Your task to perform on an android device: turn off notifications settings in the gmail app Image 0: 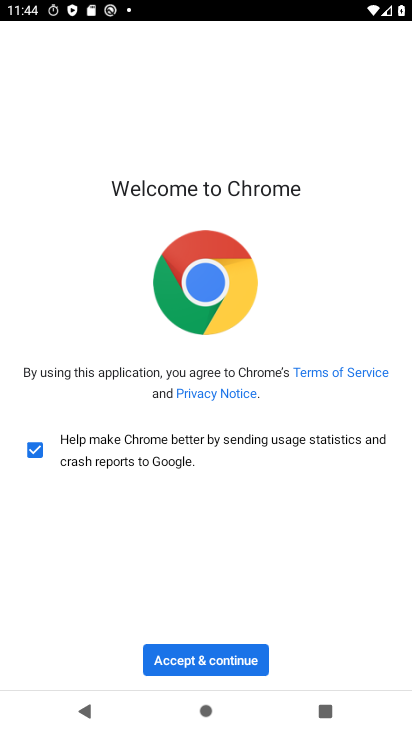
Step 0: click (4, 277)
Your task to perform on an android device: turn off notifications settings in the gmail app Image 1: 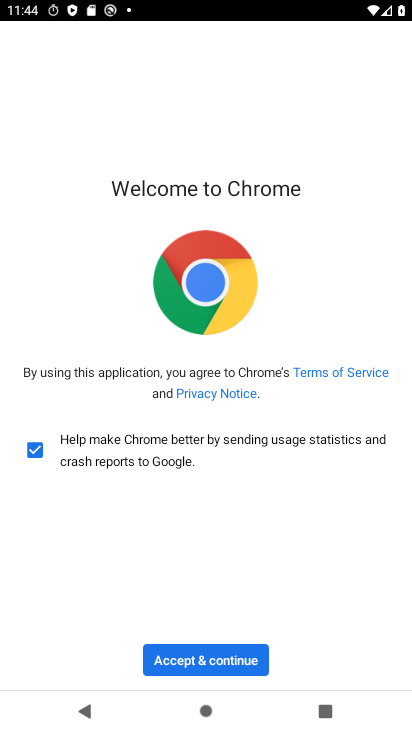
Step 1: task complete